Your task to perform on an android device: open chrome and create a bookmark for the current page Image 0: 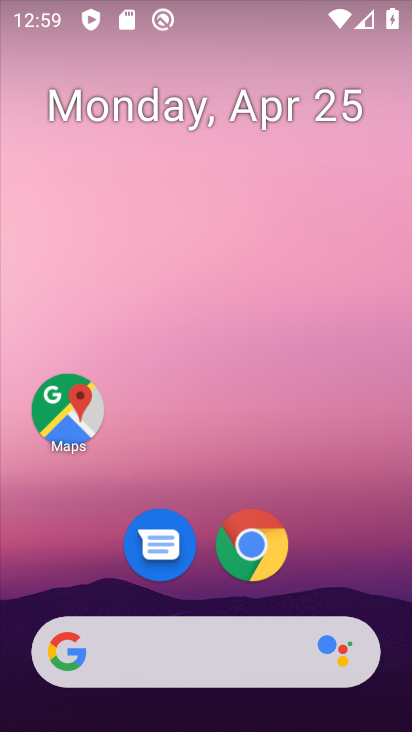
Step 0: click (264, 552)
Your task to perform on an android device: open chrome and create a bookmark for the current page Image 1: 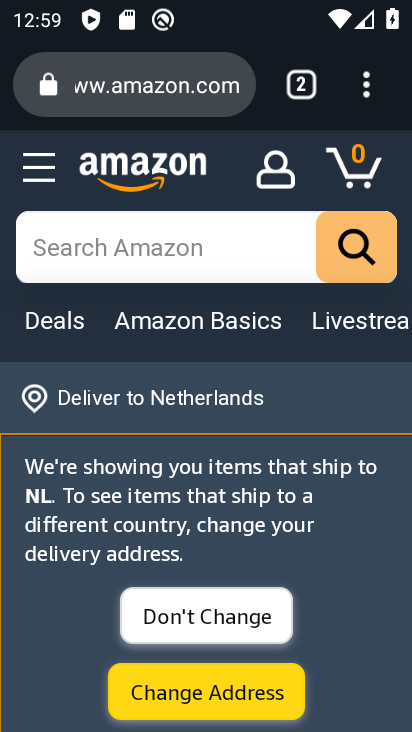
Step 1: click (364, 86)
Your task to perform on an android device: open chrome and create a bookmark for the current page Image 2: 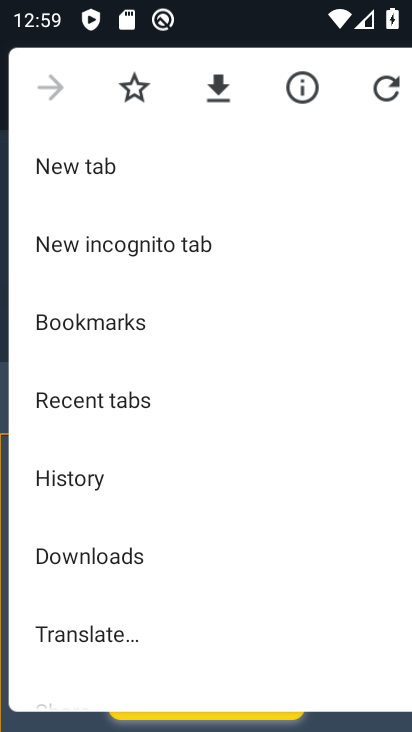
Step 2: click (136, 85)
Your task to perform on an android device: open chrome and create a bookmark for the current page Image 3: 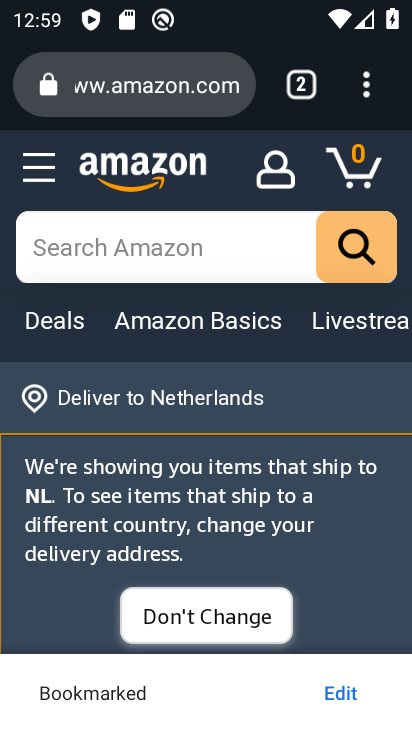
Step 3: task complete